Your task to perform on an android device: Open Youtube and go to "Your channel" Image 0: 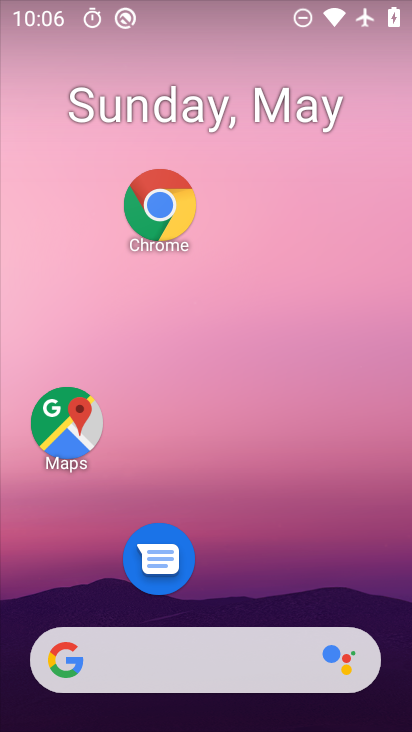
Step 0: press home button
Your task to perform on an android device: Open Youtube and go to "Your channel" Image 1: 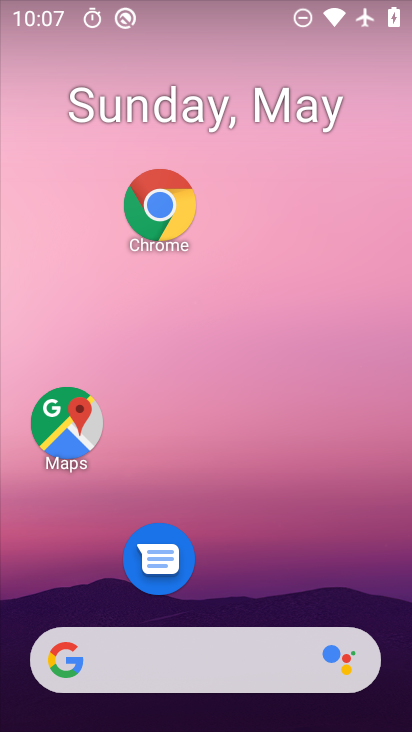
Step 1: drag from (291, 606) to (260, 76)
Your task to perform on an android device: Open Youtube and go to "Your channel" Image 2: 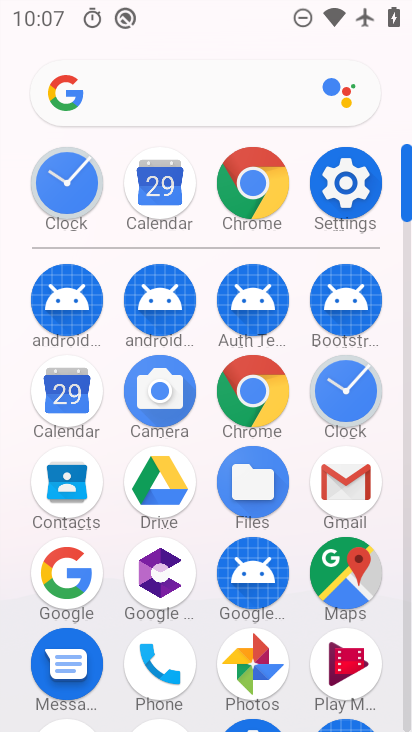
Step 2: drag from (394, 527) to (384, 191)
Your task to perform on an android device: Open Youtube and go to "Your channel" Image 3: 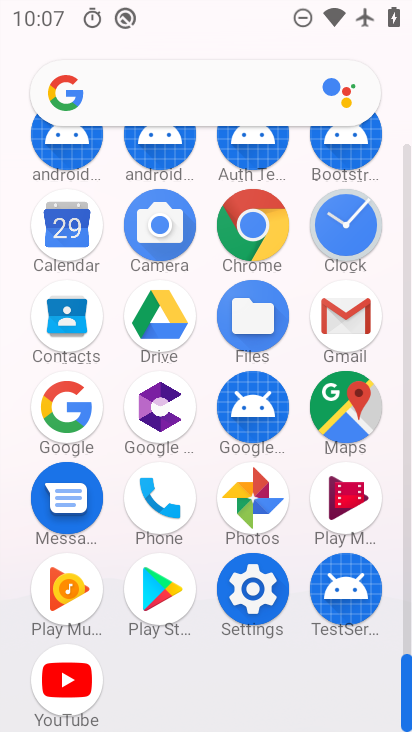
Step 3: click (52, 686)
Your task to perform on an android device: Open Youtube and go to "Your channel" Image 4: 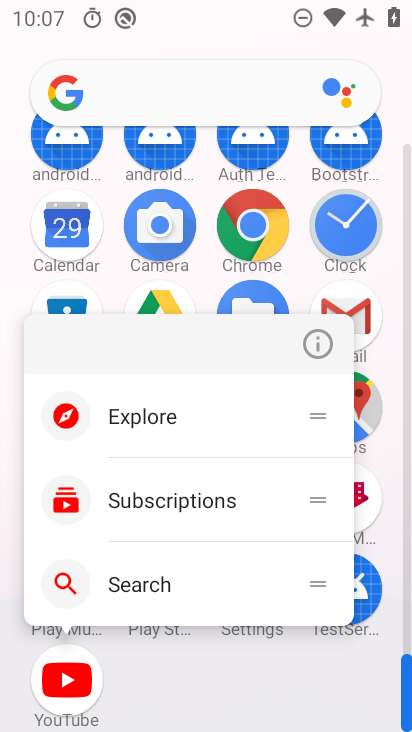
Step 4: click (75, 689)
Your task to perform on an android device: Open Youtube and go to "Your channel" Image 5: 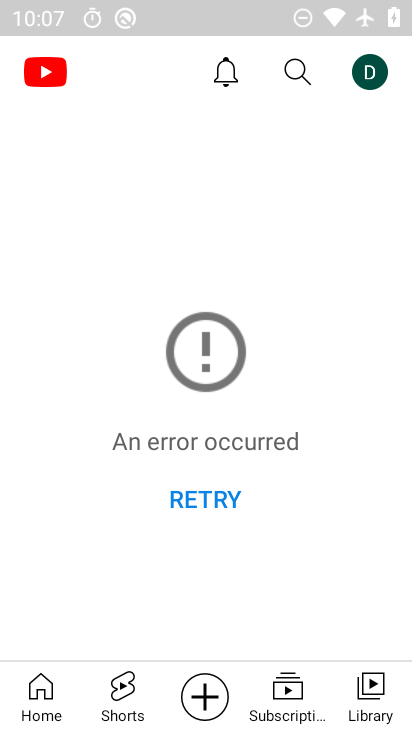
Step 5: click (208, 492)
Your task to perform on an android device: Open Youtube and go to "Your channel" Image 6: 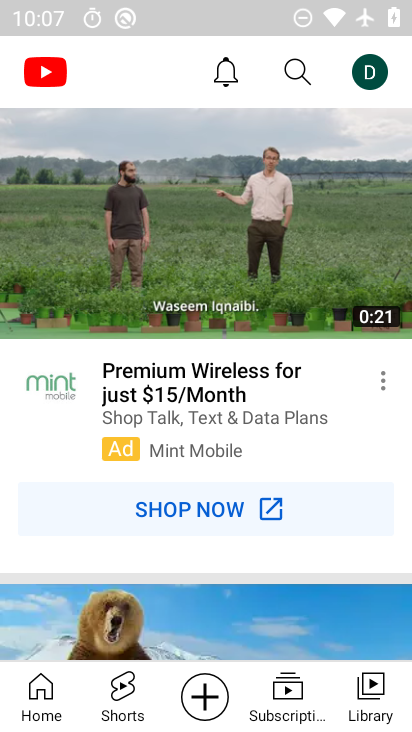
Step 6: click (375, 74)
Your task to perform on an android device: Open Youtube and go to "Your channel" Image 7: 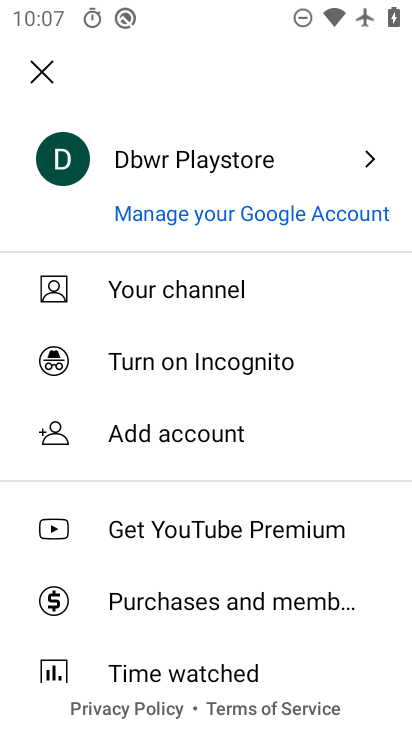
Step 7: click (181, 290)
Your task to perform on an android device: Open Youtube and go to "Your channel" Image 8: 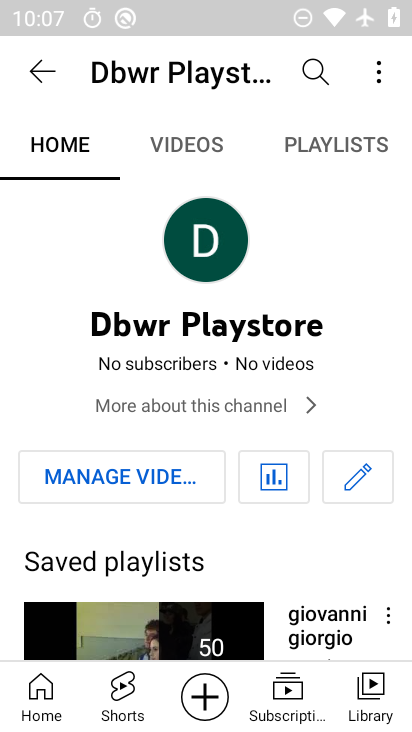
Step 8: task complete